Your task to perform on an android device: Check the weather Image 0: 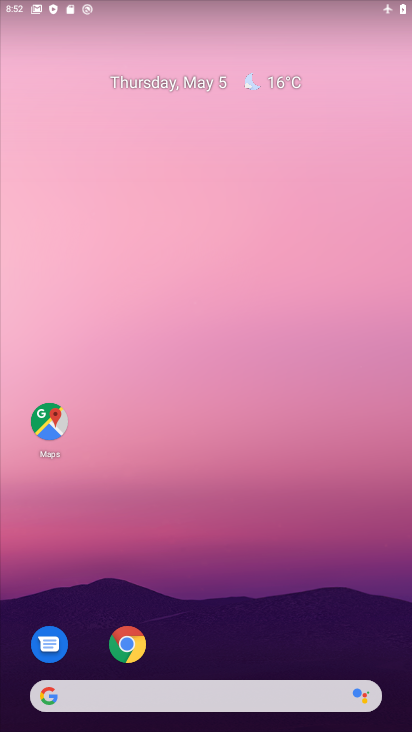
Step 0: drag from (352, 633) to (345, 151)
Your task to perform on an android device: Check the weather Image 1: 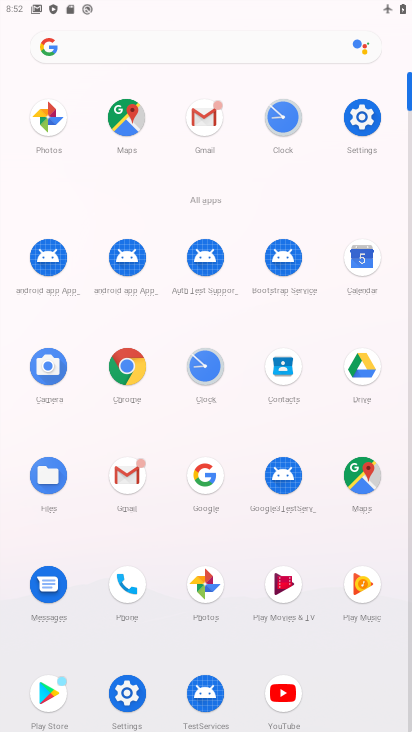
Step 1: click (130, 373)
Your task to perform on an android device: Check the weather Image 2: 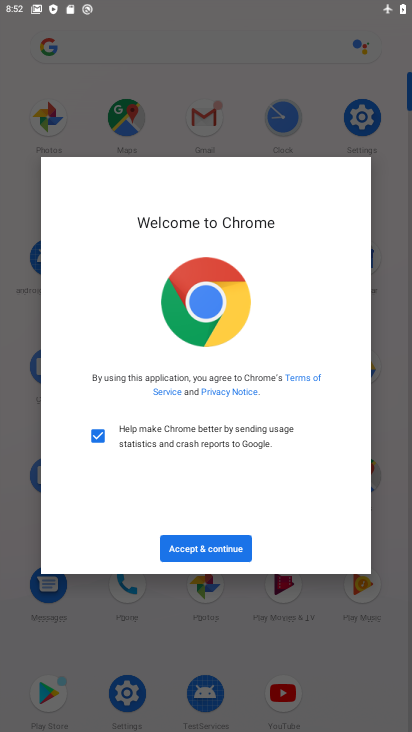
Step 2: click (220, 556)
Your task to perform on an android device: Check the weather Image 3: 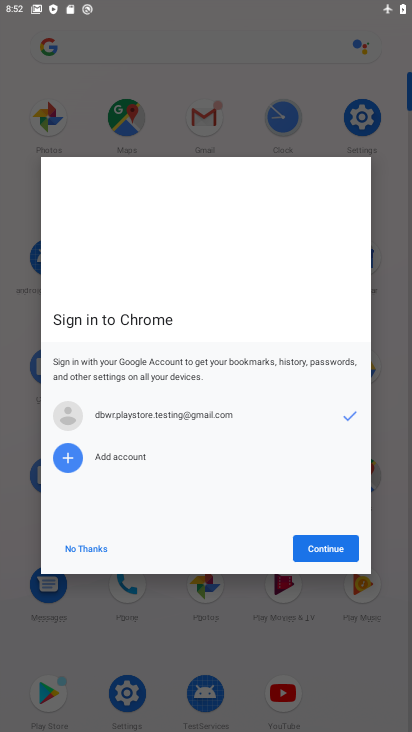
Step 3: click (333, 547)
Your task to perform on an android device: Check the weather Image 4: 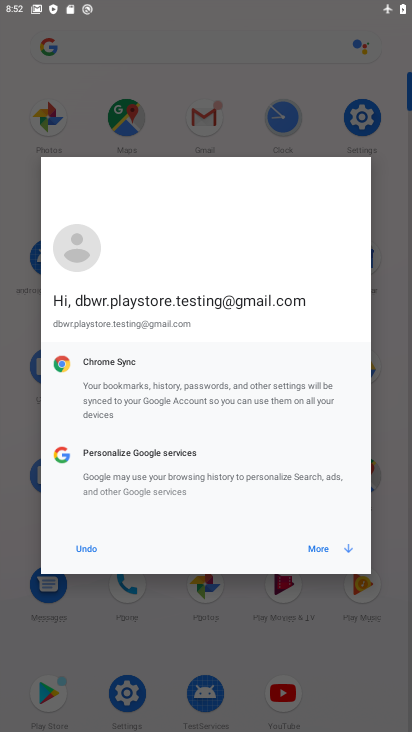
Step 4: click (317, 552)
Your task to perform on an android device: Check the weather Image 5: 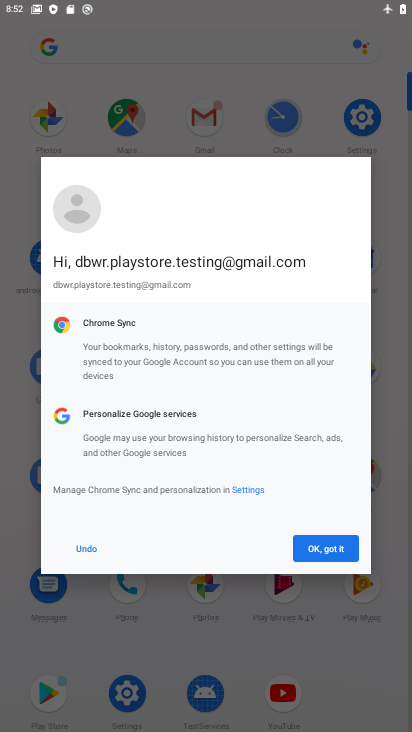
Step 5: click (315, 551)
Your task to perform on an android device: Check the weather Image 6: 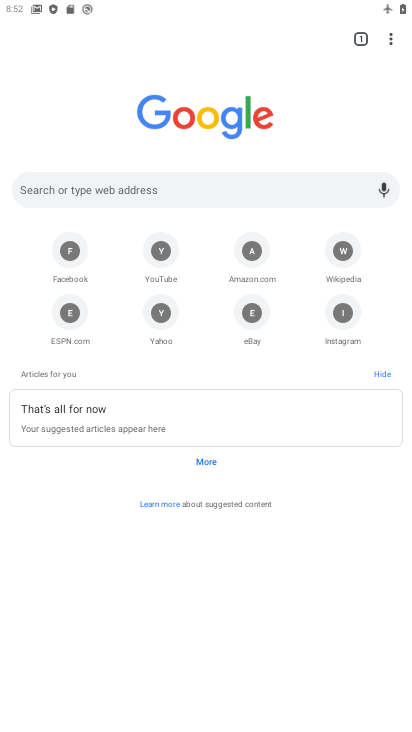
Step 6: click (144, 189)
Your task to perform on an android device: Check the weather Image 7: 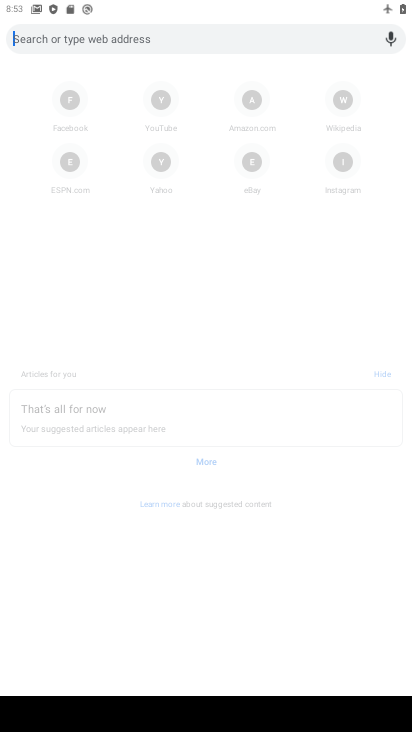
Step 7: type "check the weather"
Your task to perform on an android device: Check the weather Image 8: 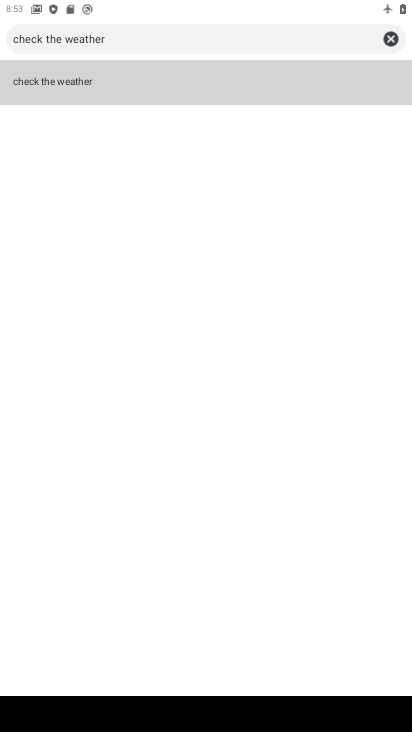
Step 8: click (114, 82)
Your task to perform on an android device: Check the weather Image 9: 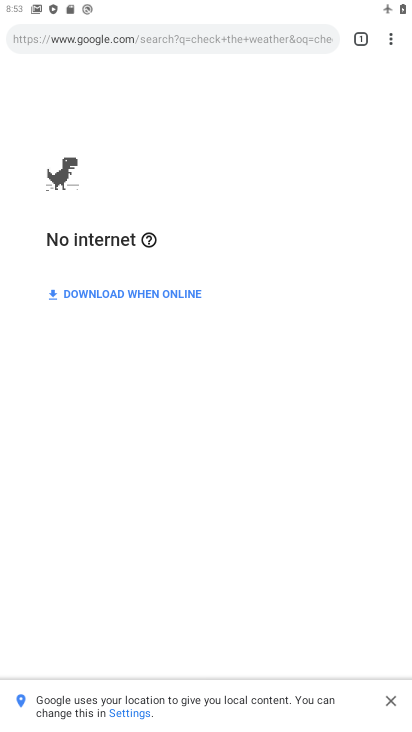
Step 9: task complete